Your task to perform on an android device: toggle notifications settings in the gmail app Image 0: 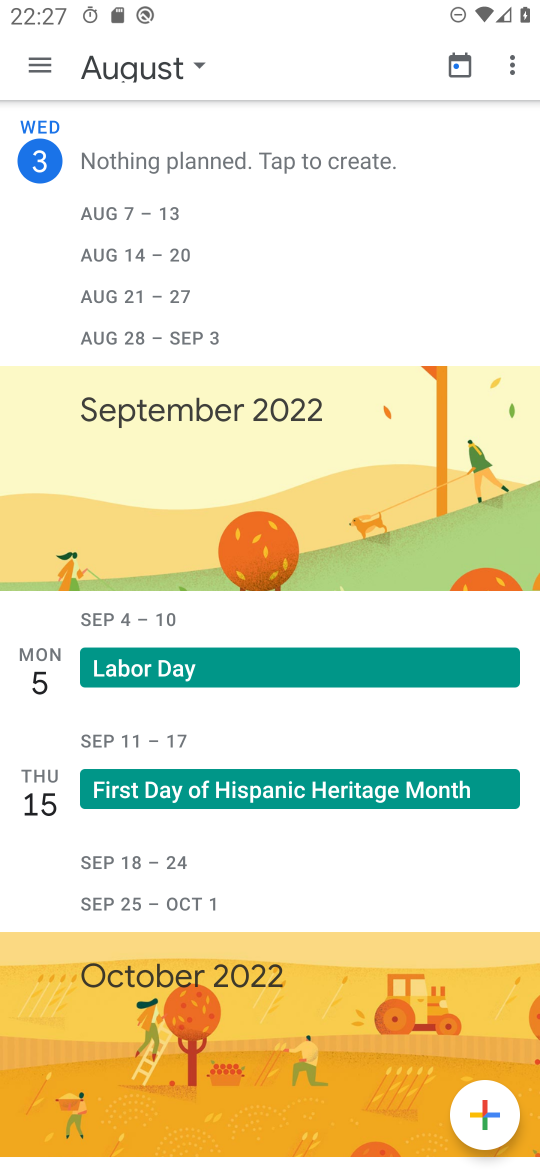
Step 0: press home button
Your task to perform on an android device: toggle notifications settings in the gmail app Image 1: 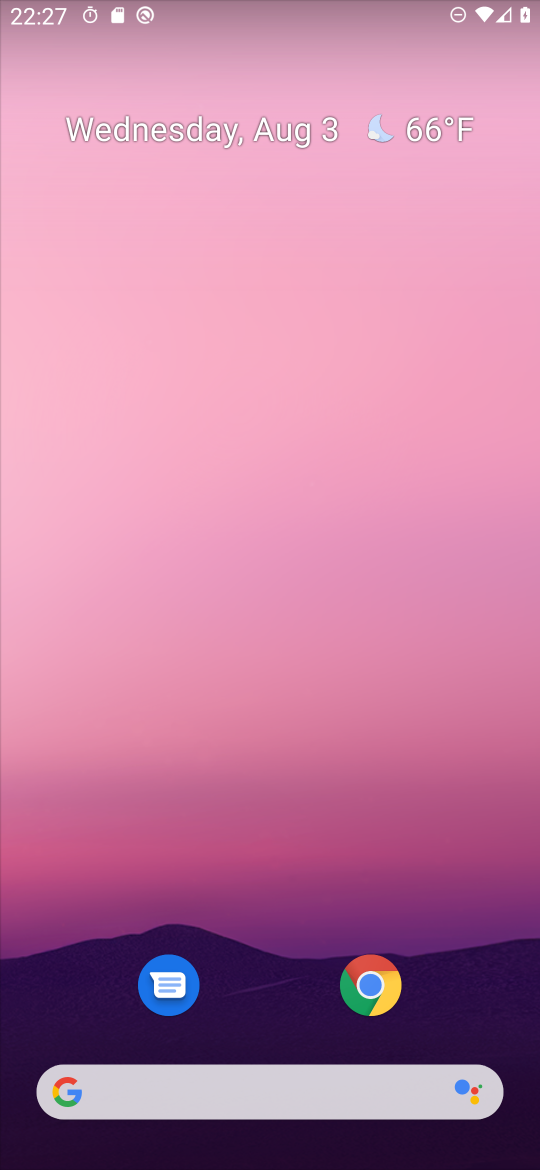
Step 1: drag from (258, 974) to (244, 234)
Your task to perform on an android device: toggle notifications settings in the gmail app Image 2: 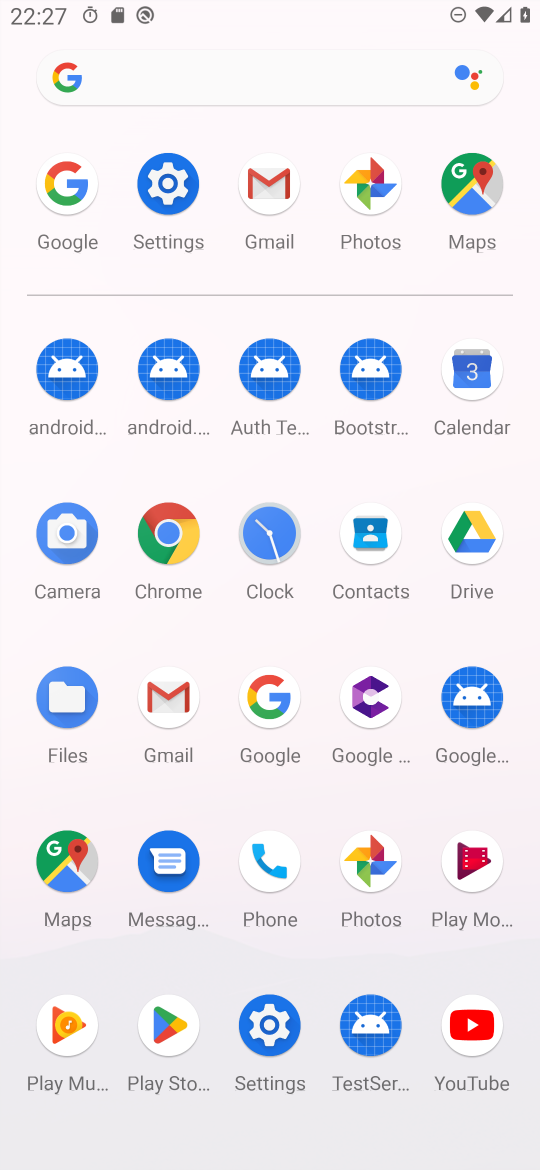
Step 2: click (265, 186)
Your task to perform on an android device: toggle notifications settings in the gmail app Image 3: 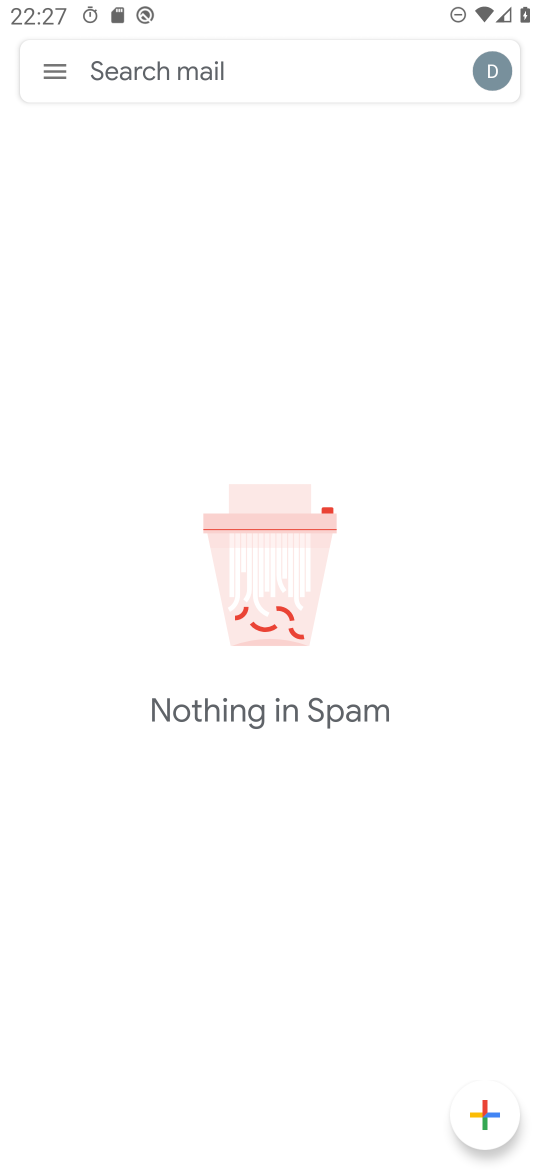
Step 3: click (57, 65)
Your task to perform on an android device: toggle notifications settings in the gmail app Image 4: 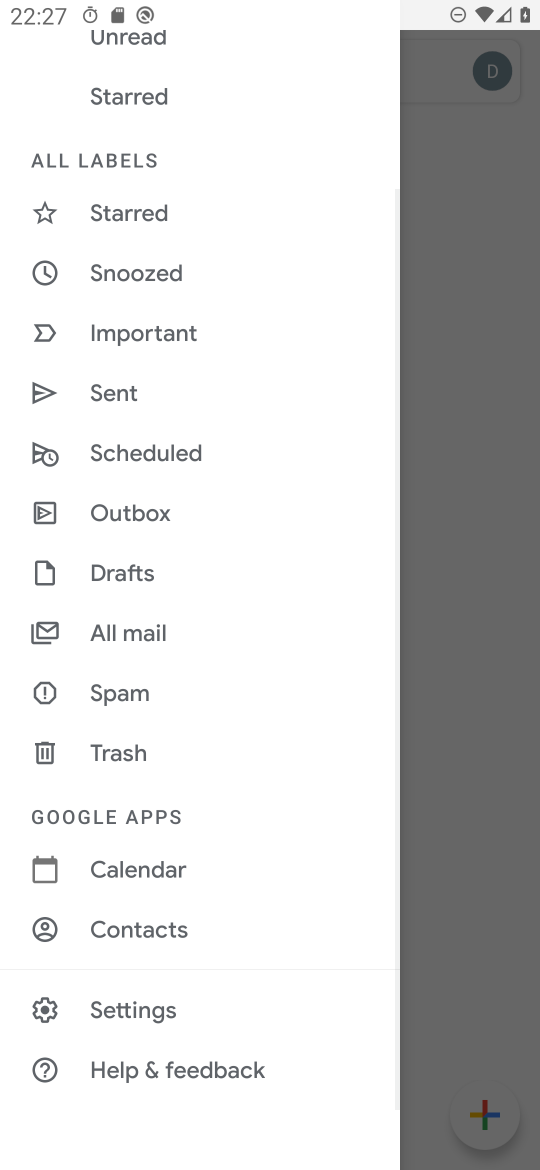
Step 4: click (155, 995)
Your task to perform on an android device: toggle notifications settings in the gmail app Image 5: 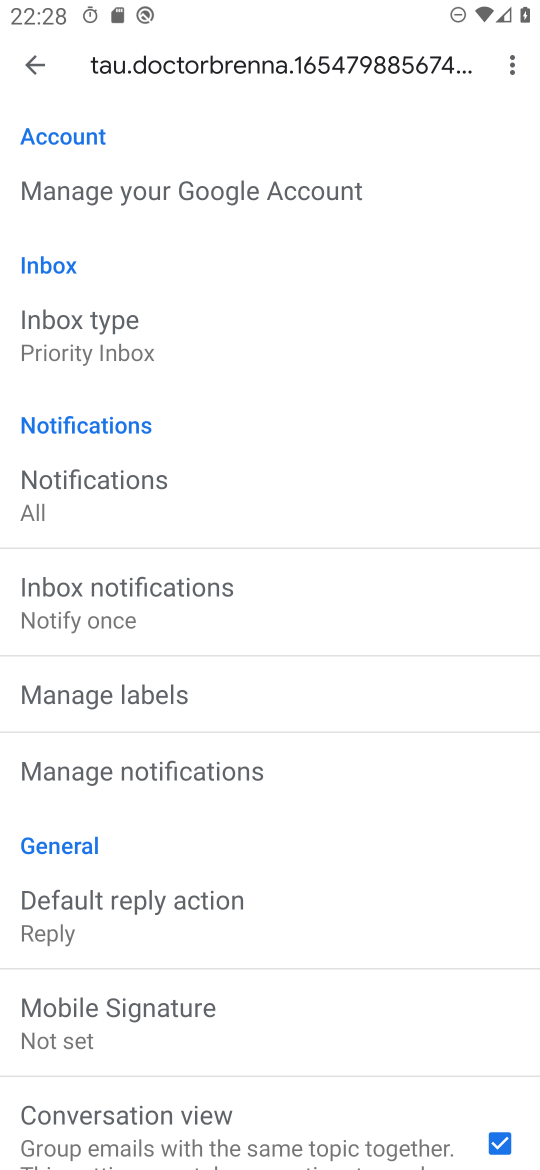
Step 5: click (221, 764)
Your task to perform on an android device: toggle notifications settings in the gmail app Image 6: 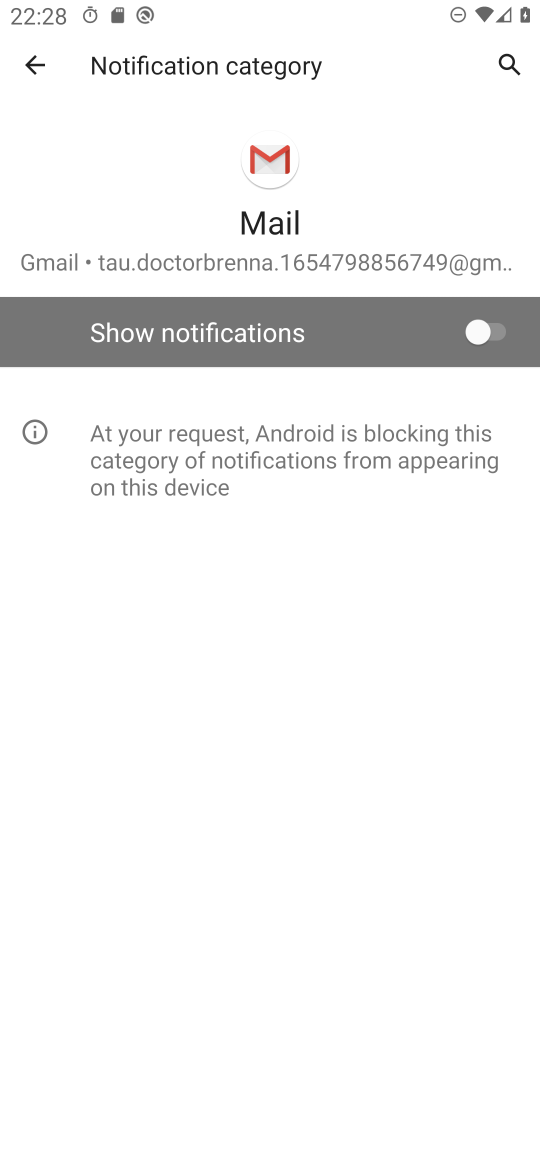
Step 6: click (493, 321)
Your task to perform on an android device: toggle notifications settings in the gmail app Image 7: 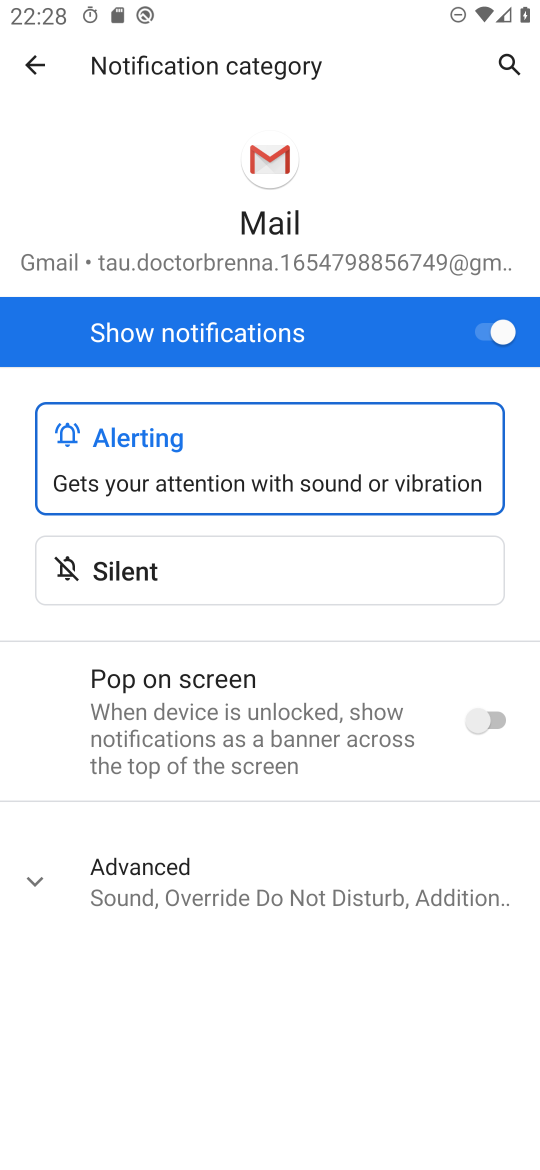
Step 7: task complete